Your task to perform on an android device: Go to sound settings Image 0: 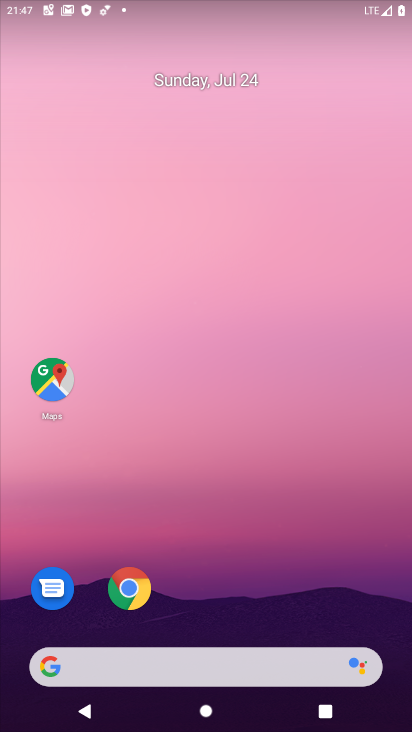
Step 0: drag from (235, 659) to (165, 307)
Your task to perform on an android device: Go to sound settings Image 1: 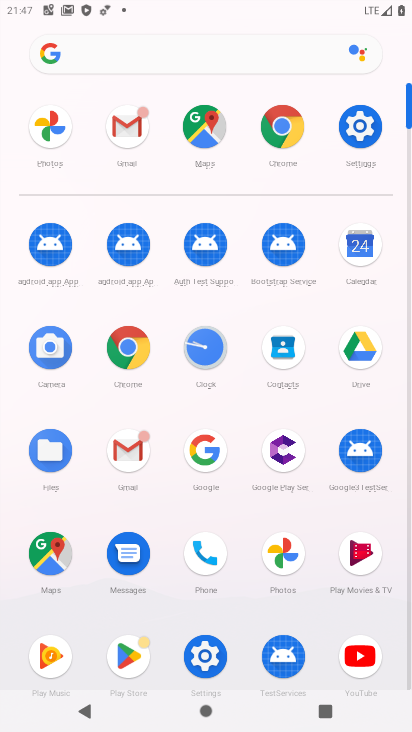
Step 1: click (210, 653)
Your task to perform on an android device: Go to sound settings Image 2: 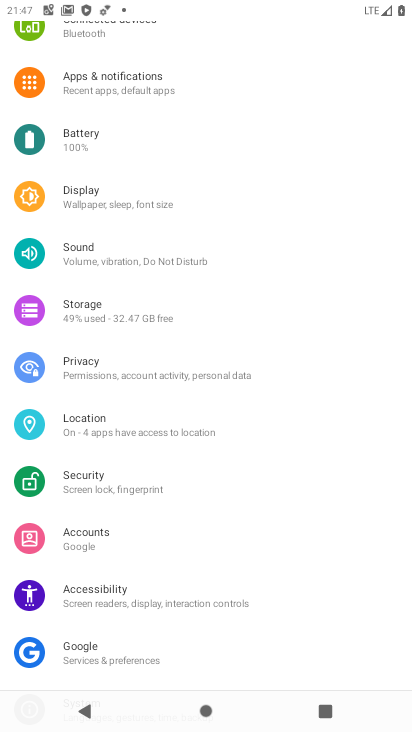
Step 2: click (125, 254)
Your task to perform on an android device: Go to sound settings Image 3: 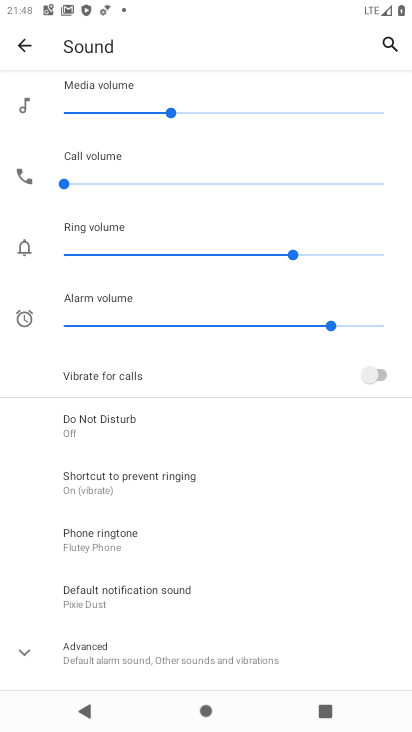
Step 3: task complete